Your task to perform on an android device: open app "Indeed Job Search" (install if not already installed) and enter user name: "quixotic@inbox.com" and password: "microphones" Image 0: 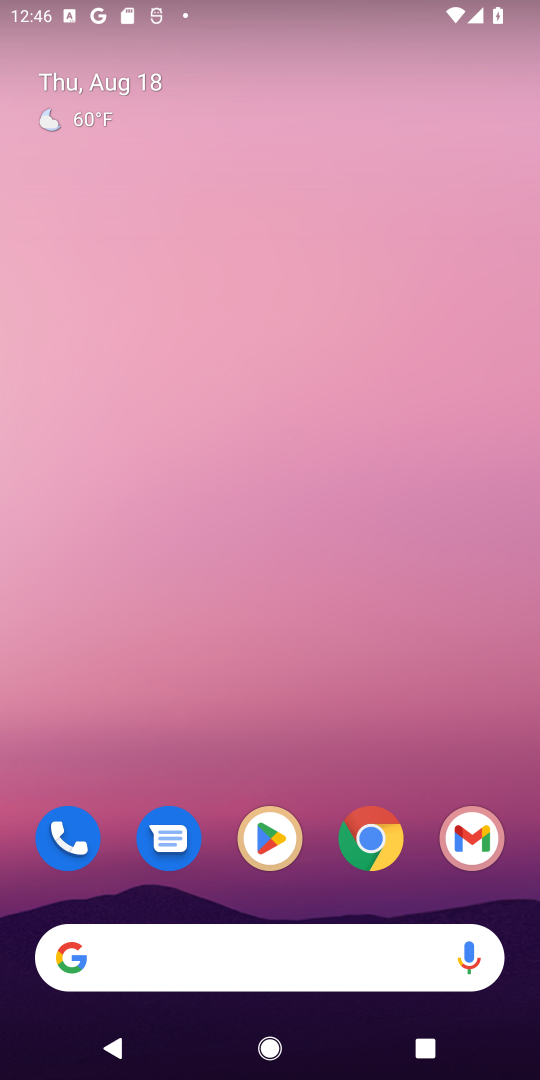
Step 0: click (289, 843)
Your task to perform on an android device: open app "Indeed Job Search" (install if not already installed) and enter user name: "quixotic@inbox.com" and password: "microphones" Image 1: 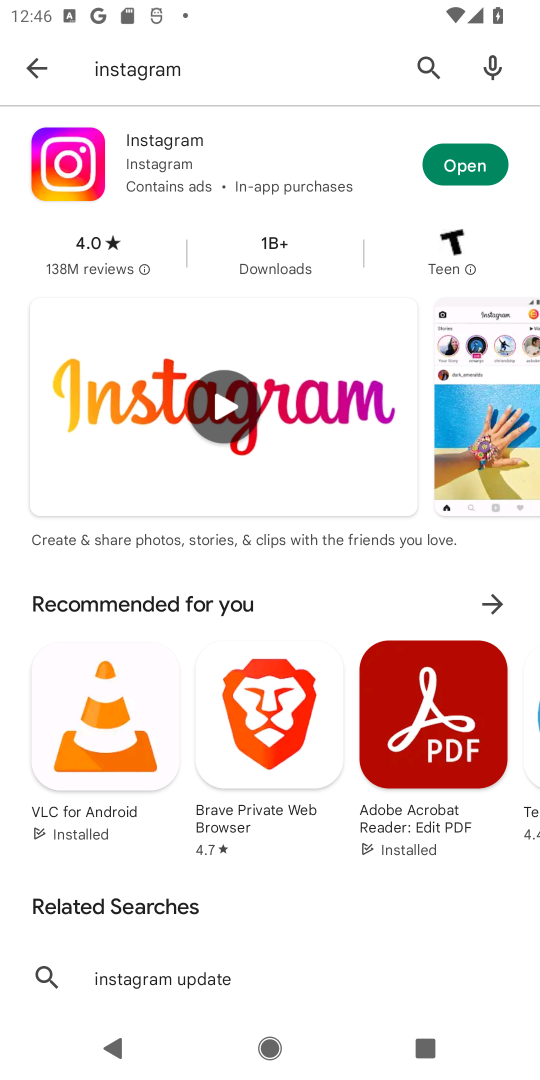
Step 1: click (425, 55)
Your task to perform on an android device: open app "Indeed Job Search" (install if not already installed) and enter user name: "quixotic@inbox.com" and password: "microphones" Image 2: 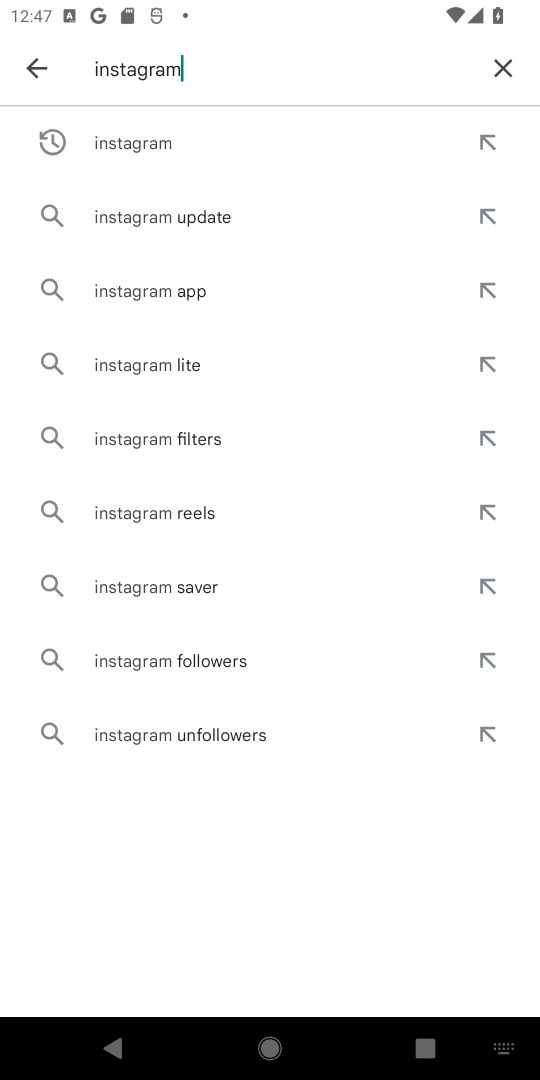
Step 2: click (494, 66)
Your task to perform on an android device: open app "Indeed Job Search" (install if not already installed) and enter user name: "quixotic@inbox.com" and password: "microphones" Image 3: 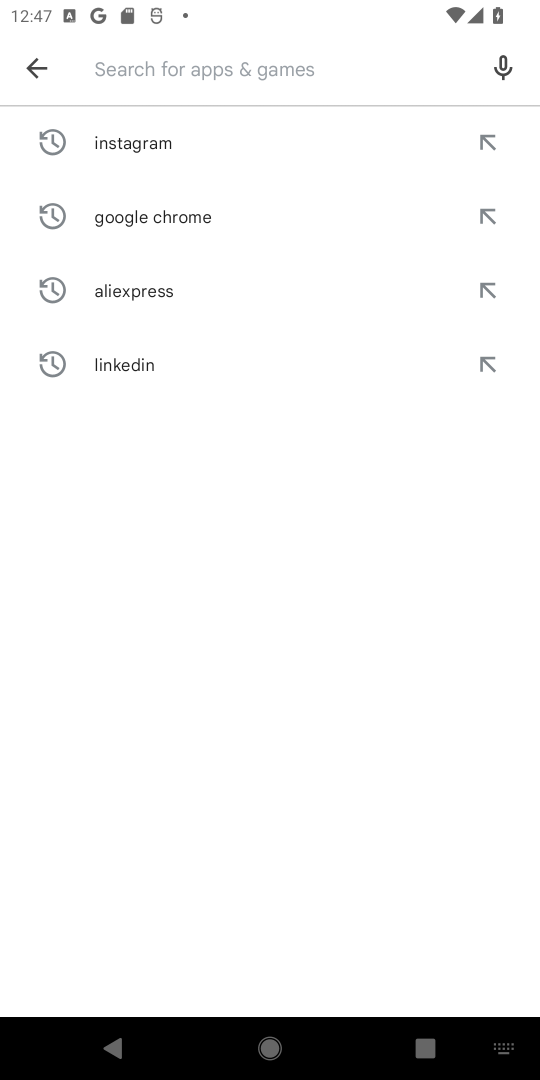
Step 3: type "Indeed Job Search"
Your task to perform on an android device: open app "Indeed Job Search" (install if not already installed) and enter user name: "quixotic@inbox.com" and password: "microphones" Image 4: 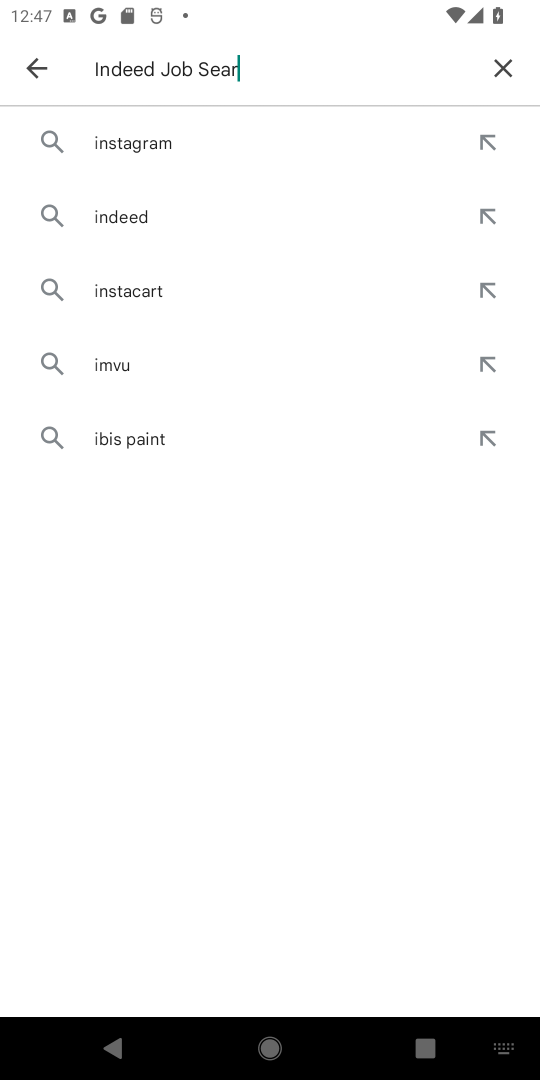
Step 4: type ""
Your task to perform on an android device: open app "Indeed Job Search" (install if not already installed) and enter user name: "quixotic@inbox.com" and password: "microphones" Image 5: 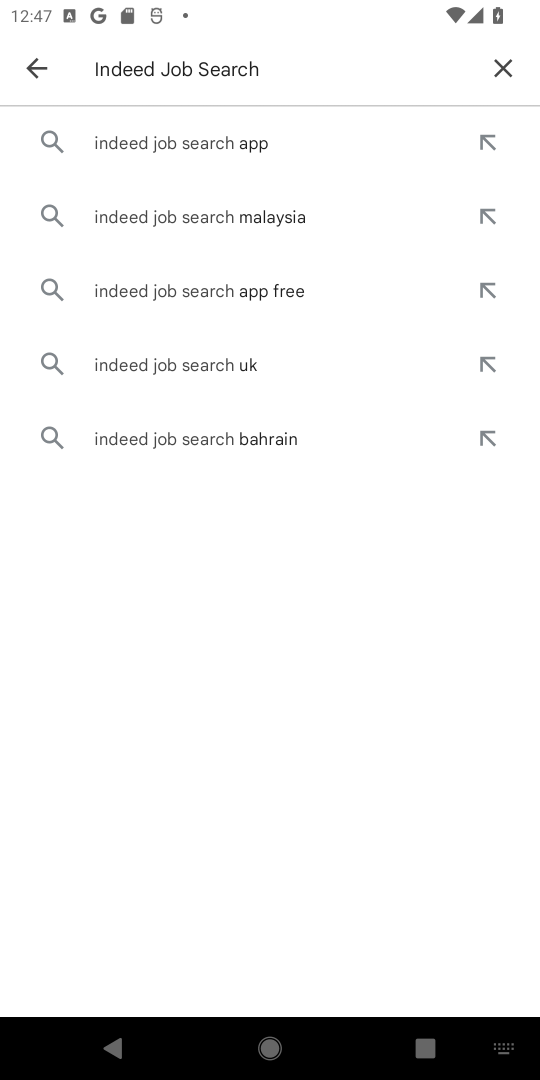
Step 5: click (213, 141)
Your task to perform on an android device: open app "Indeed Job Search" (install if not already installed) and enter user name: "quixotic@inbox.com" and password: "microphones" Image 6: 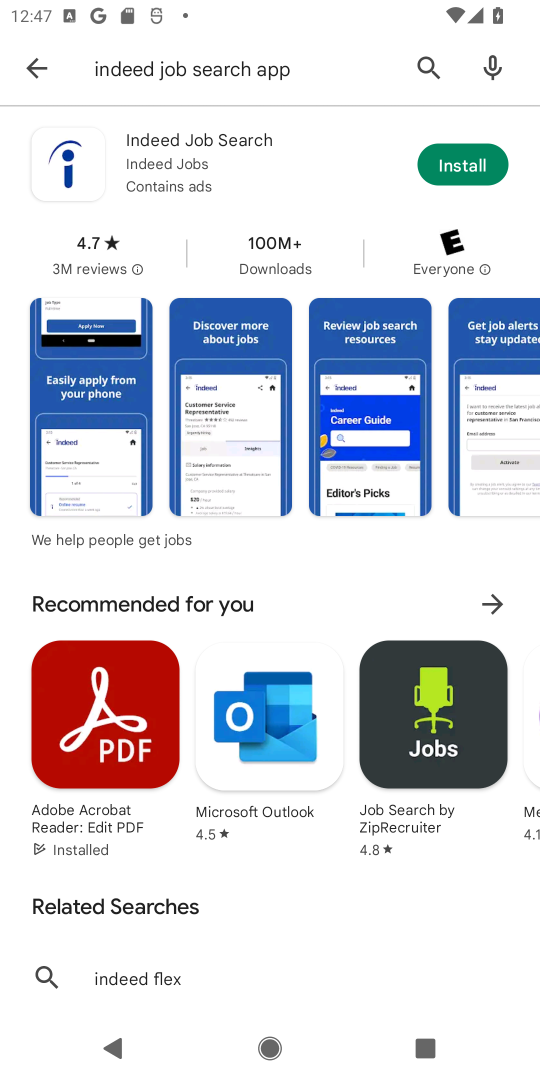
Step 6: click (475, 169)
Your task to perform on an android device: open app "Indeed Job Search" (install if not already installed) and enter user name: "quixotic@inbox.com" and password: "microphones" Image 7: 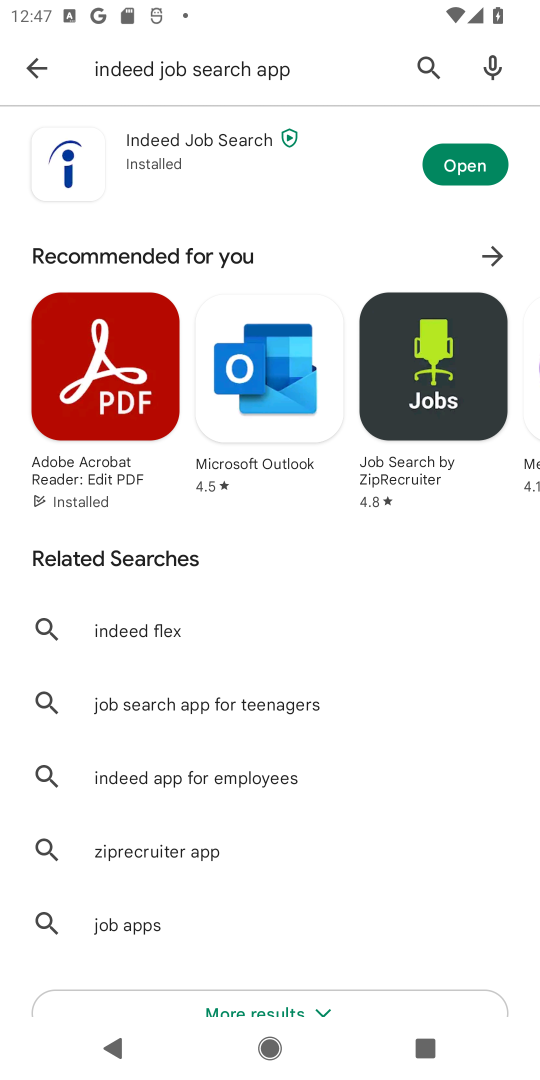
Step 7: click (475, 169)
Your task to perform on an android device: open app "Indeed Job Search" (install if not already installed) and enter user name: "quixotic@inbox.com" and password: "microphones" Image 8: 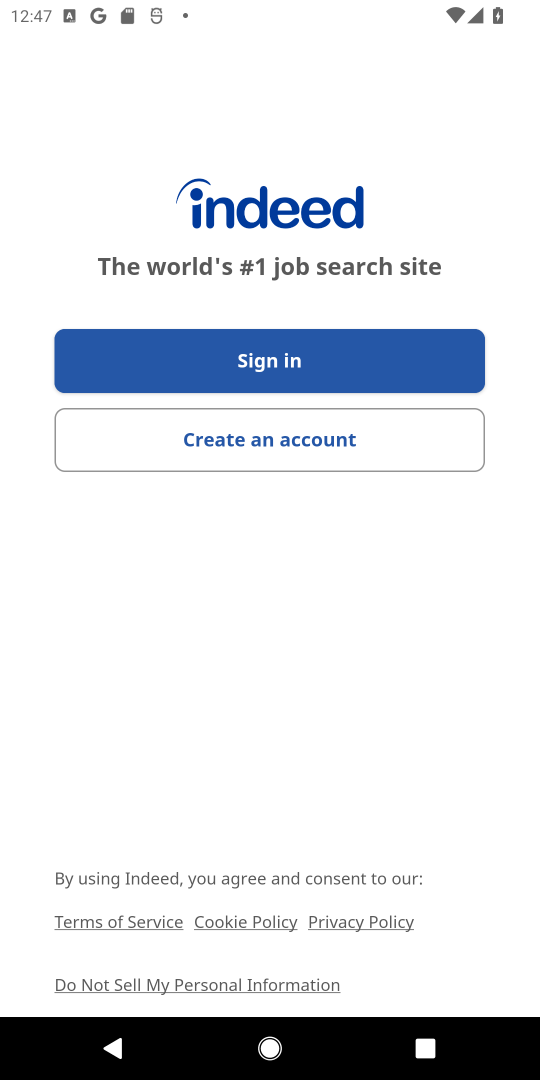
Step 8: task complete